Your task to perform on an android device: set the timer Image 0: 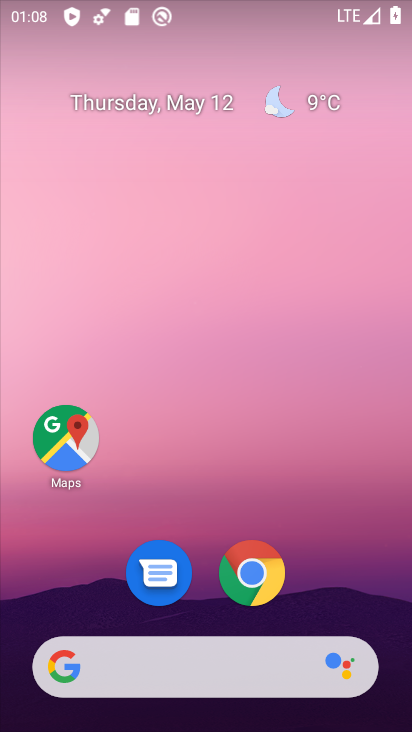
Step 0: drag from (329, 574) to (314, 26)
Your task to perform on an android device: set the timer Image 1: 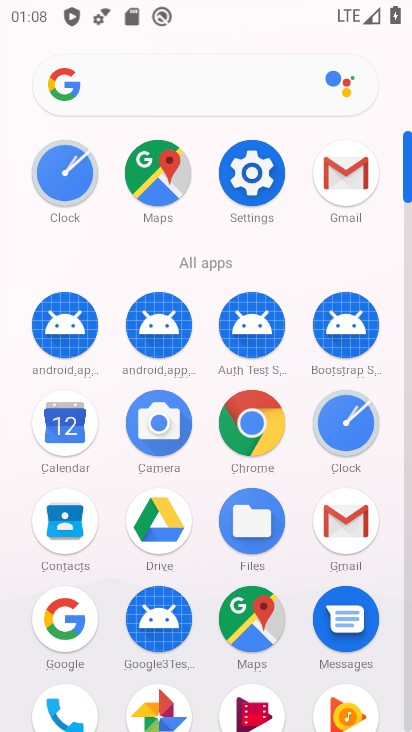
Step 1: click (347, 424)
Your task to perform on an android device: set the timer Image 2: 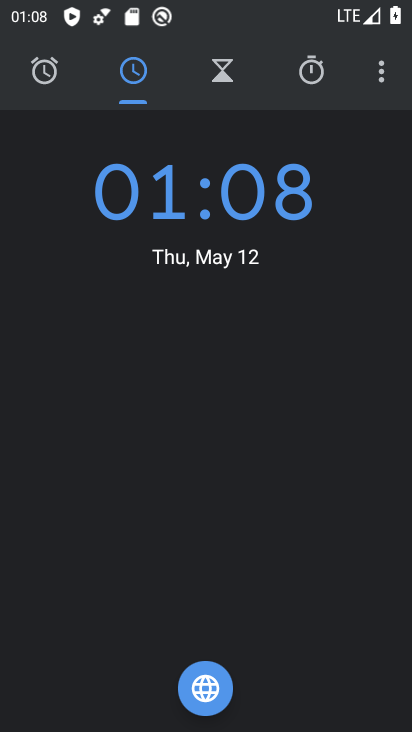
Step 2: click (242, 68)
Your task to perform on an android device: set the timer Image 3: 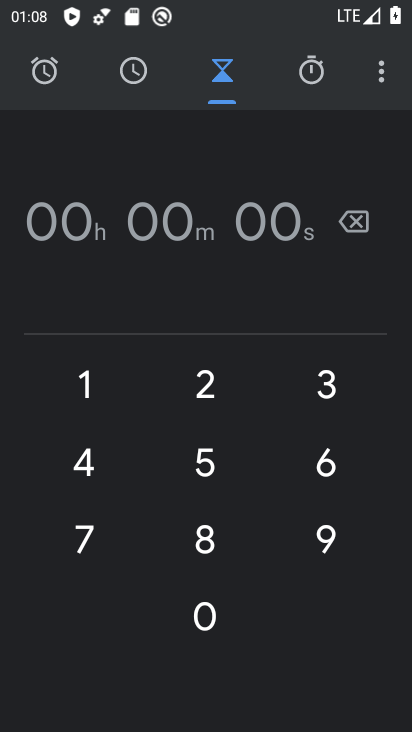
Step 3: click (117, 544)
Your task to perform on an android device: set the timer Image 4: 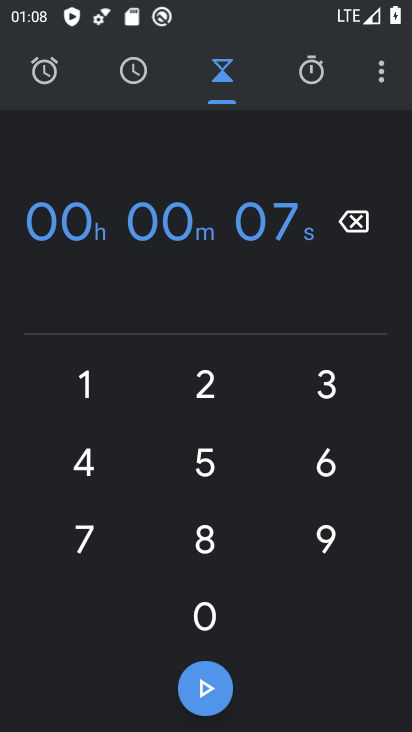
Step 4: click (199, 547)
Your task to perform on an android device: set the timer Image 5: 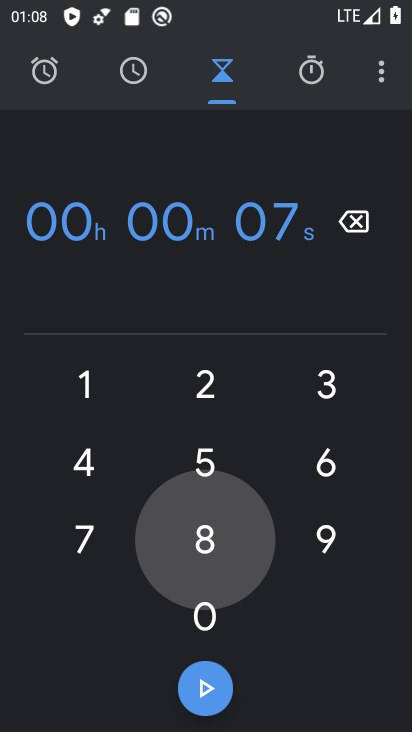
Step 5: click (347, 539)
Your task to perform on an android device: set the timer Image 6: 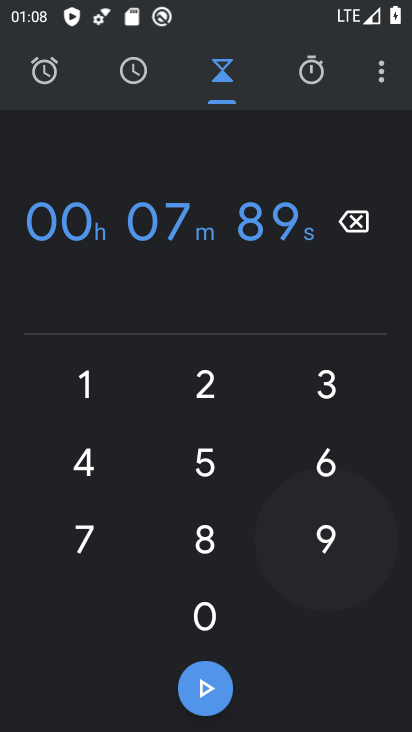
Step 6: click (322, 485)
Your task to perform on an android device: set the timer Image 7: 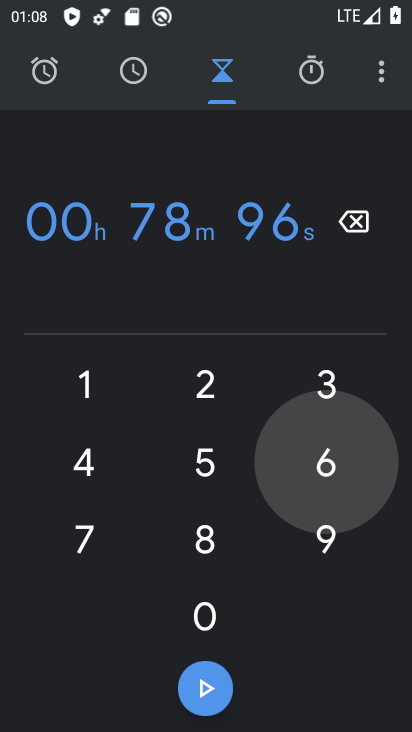
Step 7: click (196, 449)
Your task to perform on an android device: set the timer Image 8: 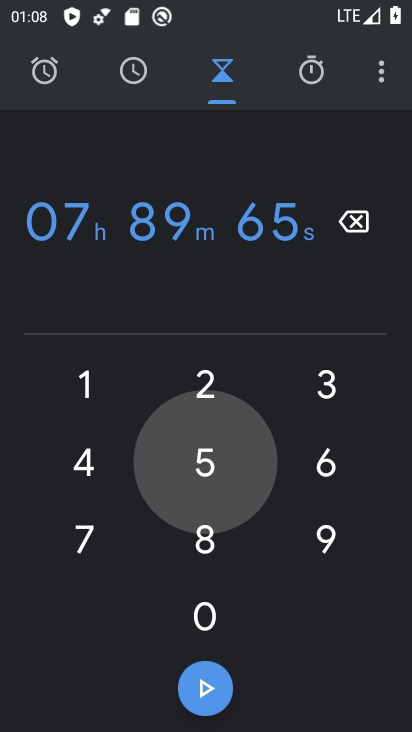
Step 8: click (119, 448)
Your task to perform on an android device: set the timer Image 9: 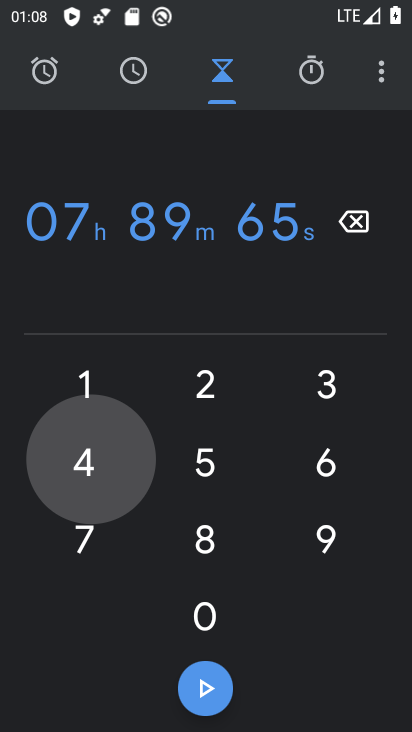
Step 9: click (96, 399)
Your task to perform on an android device: set the timer Image 10: 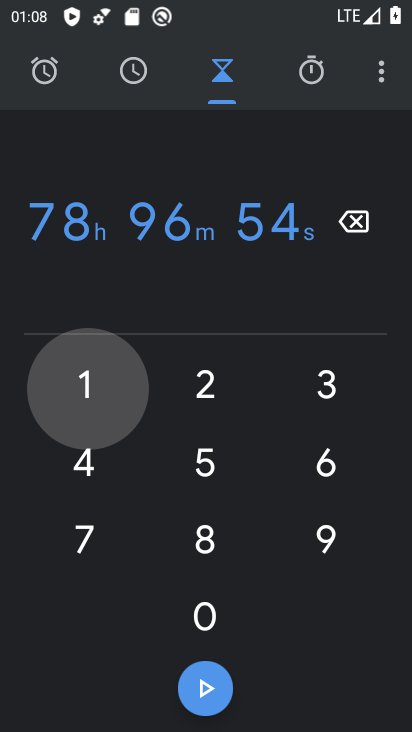
Step 10: click (199, 396)
Your task to perform on an android device: set the timer Image 11: 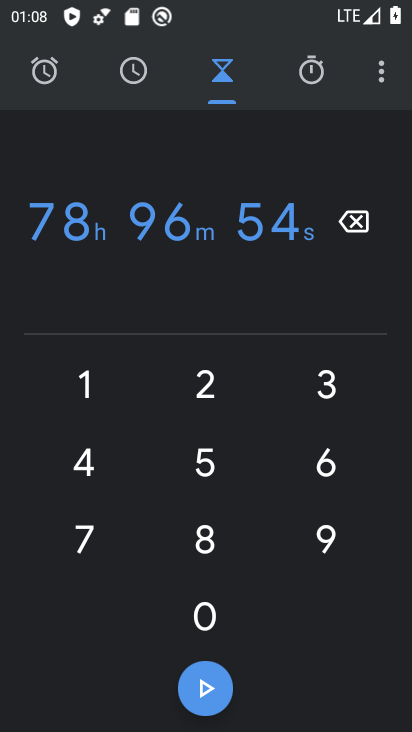
Step 11: click (203, 703)
Your task to perform on an android device: set the timer Image 12: 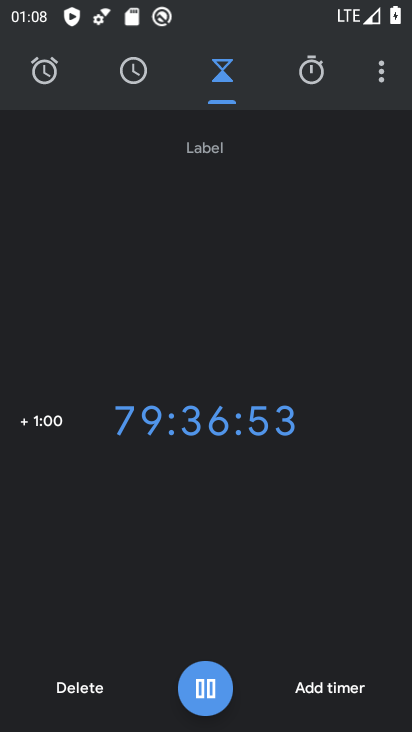
Step 12: task complete